Your task to perform on an android device: turn on airplane mode Image 0: 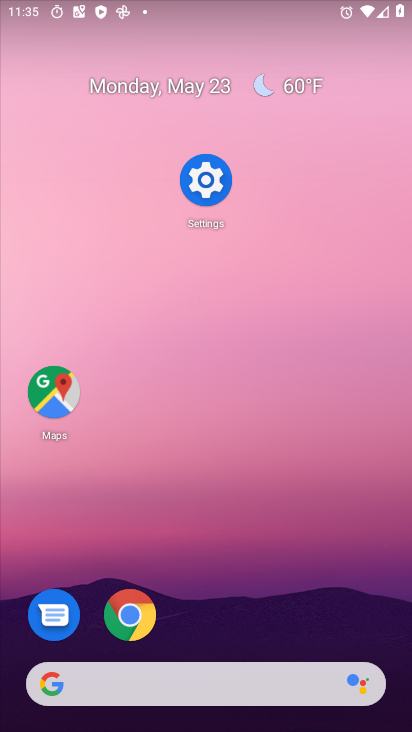
Step 0: drag from (245, 552) to (228, 77)
Your task to perform on an android device: turn on airplane mode Image 1: 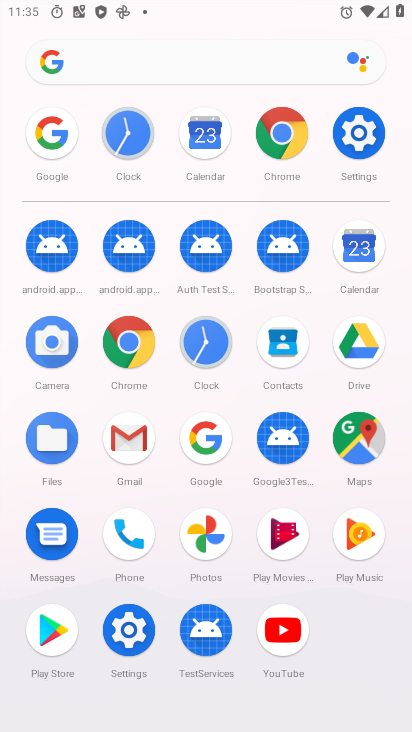
Step 1: click (355, 139)
Your task to perform on an android device: turn on airplane mode Image 2: 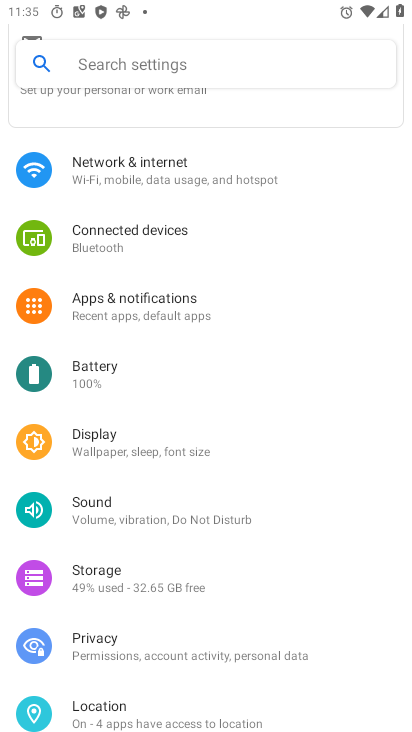
Step 2: click (157, 169)
Your task to perform on an android device: turn on airplane mode Image 3: 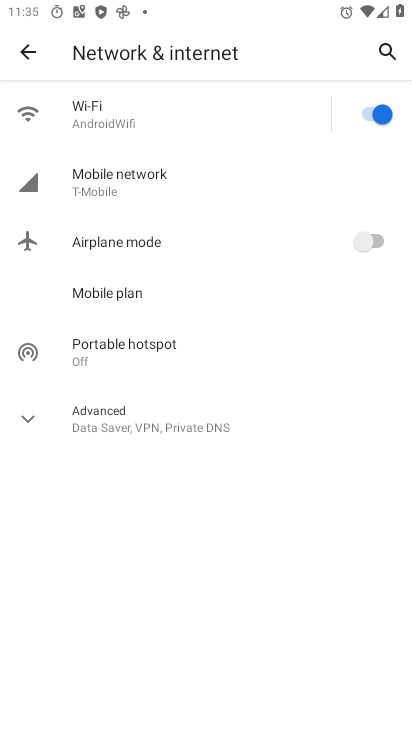
Step 3: click (365, 241)
Your task to perform on an android device: turn on airplane mode Image 4: 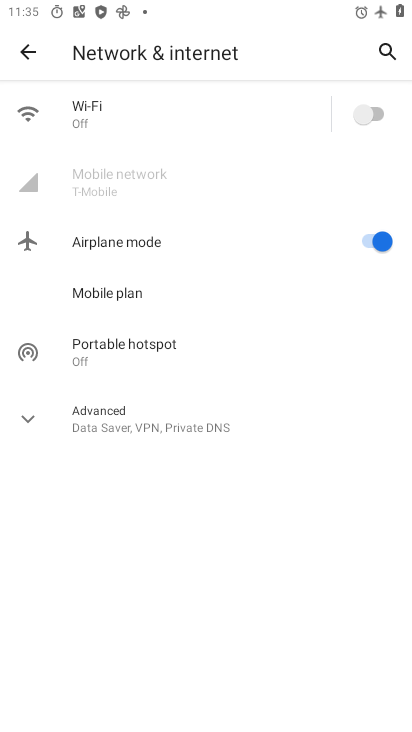
Step 4: task complete